Your task to perform on an android device: What's the weather? Image 0: 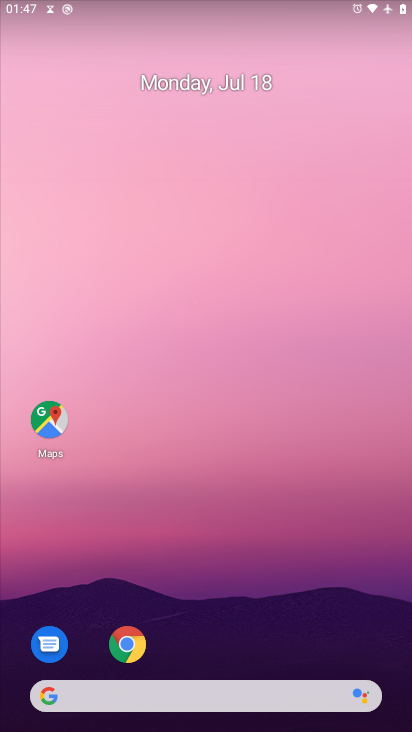
Step 0: press home button
Your task to perform on an android device: What's the weather? Image 1: 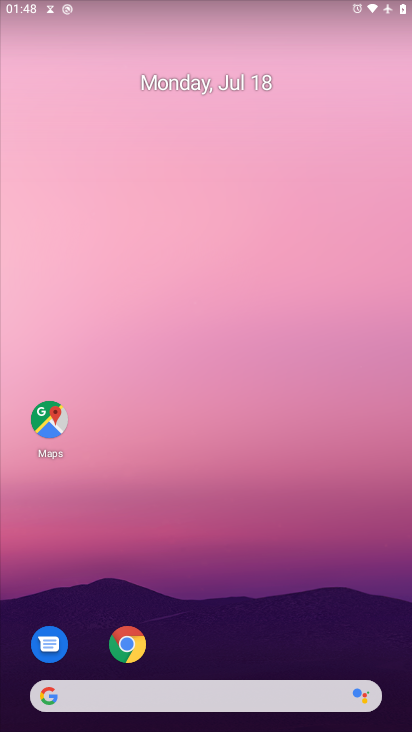
Step 1: click (42, 700)
Your task to perform on an android device: What's the weather? Image 2: 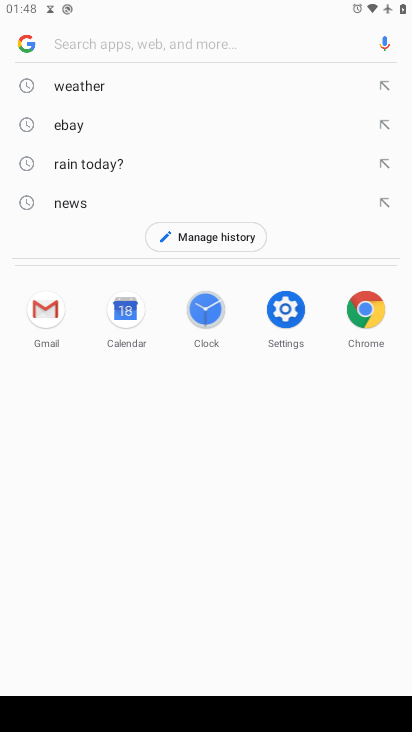
Step 2: click (68, 89)
Your task to perform on an android device: What's the weather? Image 3: 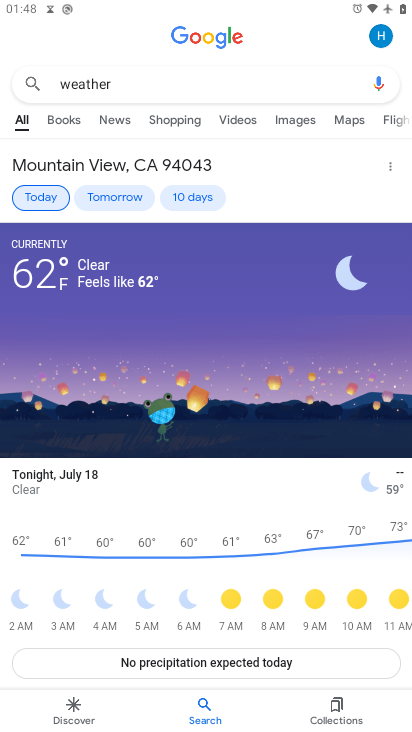
Step 3: task complete